Your task to perform on an android device: Open the calendar and show me this week's events? Image 0: 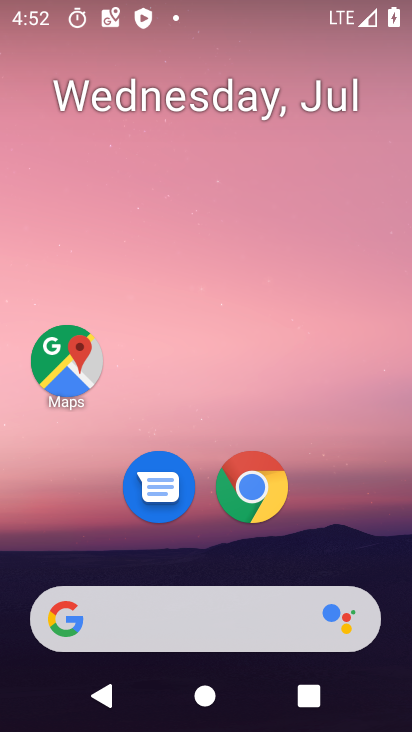
Step 0: drag from (186, 549) to (261, 27)
Your task to perform on an android device: Open the calendar and show me this week's events? Image 1: 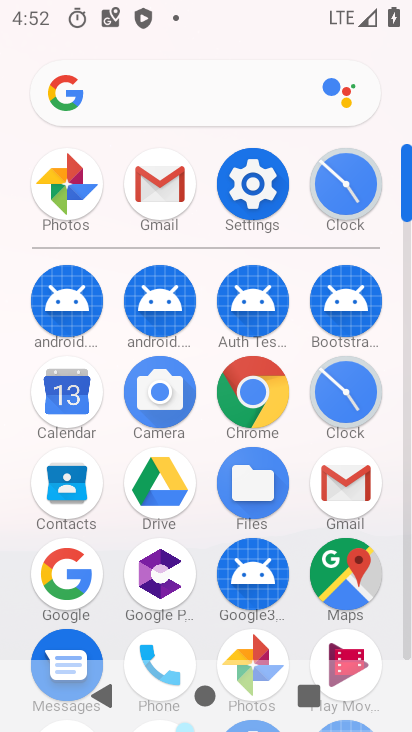
Step 1: click (64, 396)
Your task to perform on an android device: Open the calendar and show me this week's events? Image 2: 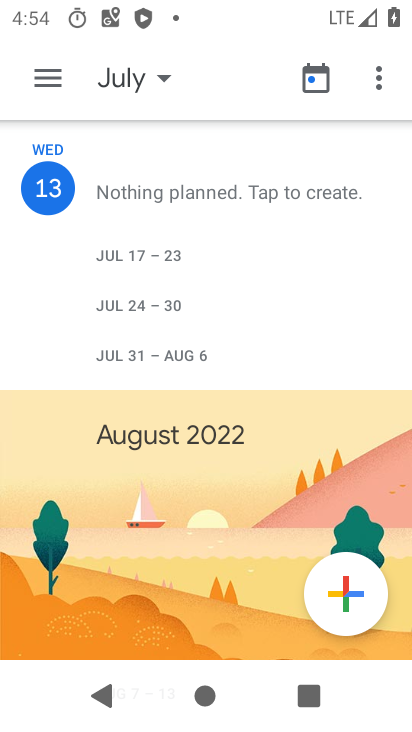
Step 2: click (128, 87)
Your task to perform on an android device: Open the calendar and show me this week's events? Image 3: 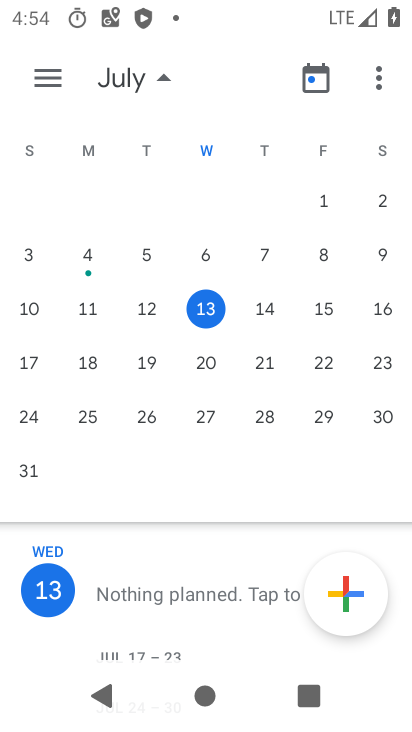
Step 3: click (208, 315)
Your task to perform on an android device: Open the calendar and show me this week's events? Image 4: 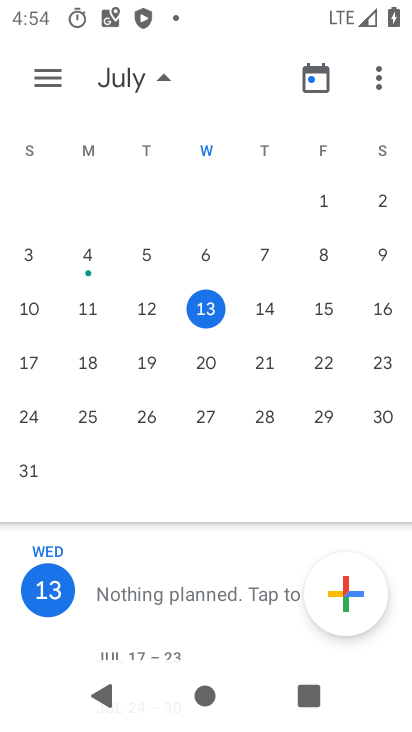
Step 4: task complete